Your task to perform on an android device: Go to location settings Image 0: 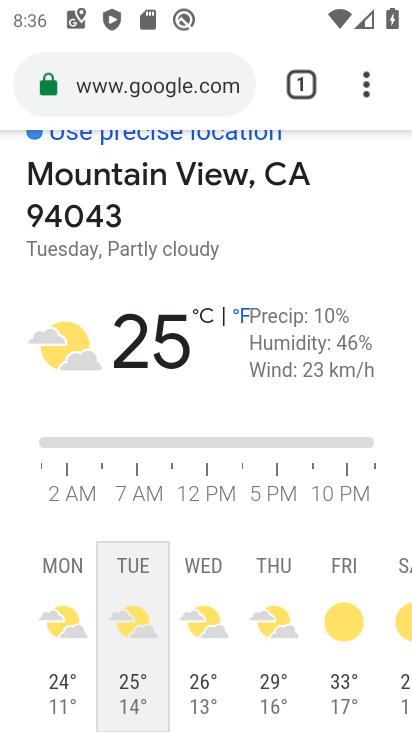
Step 0: press home button
Your task to perform on an android device: Go to location settings Image 1: 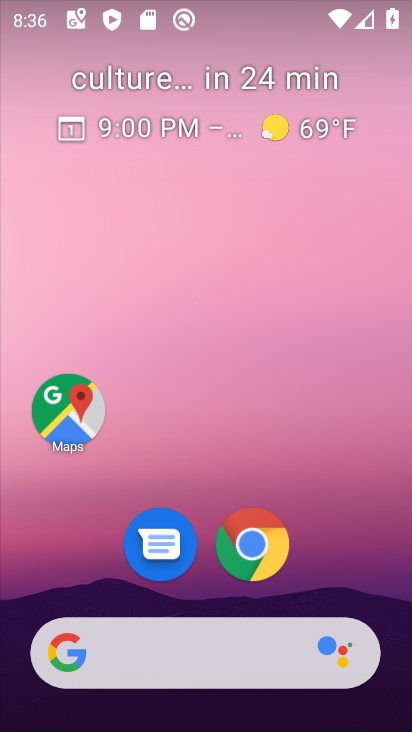
Step 1: drag from (217, 568) to (252, 226)
Your task to perform on an android device: Go to location settings Image 2: 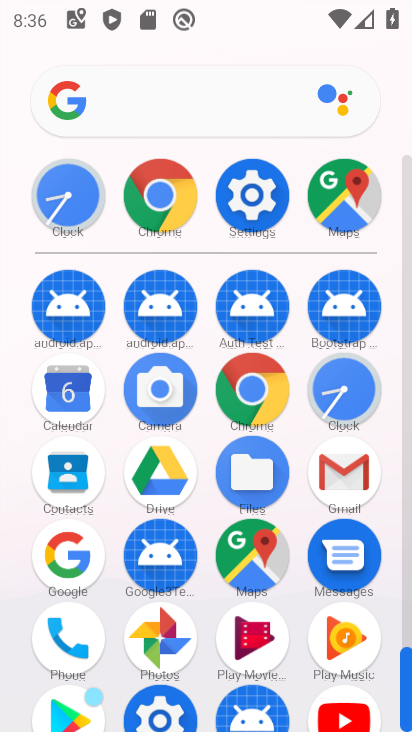
Step 2: click (244, 199)
Your task to perform on an android device: Go to location settings Image 3: 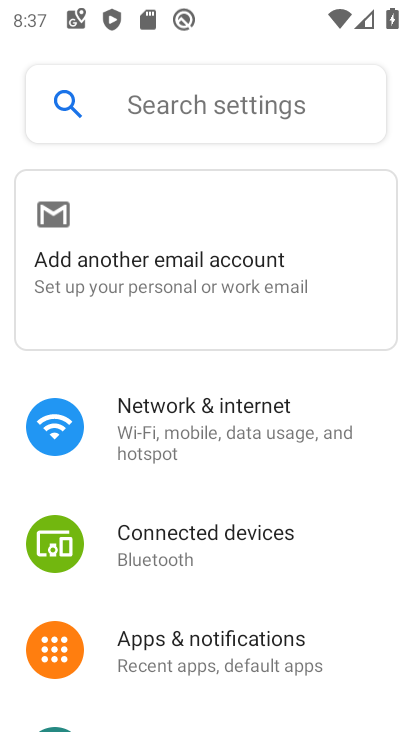
Step 3: drag from (225, 580) to (277, 171)
Your task to perform on an android device: Go to location settings Image 4: 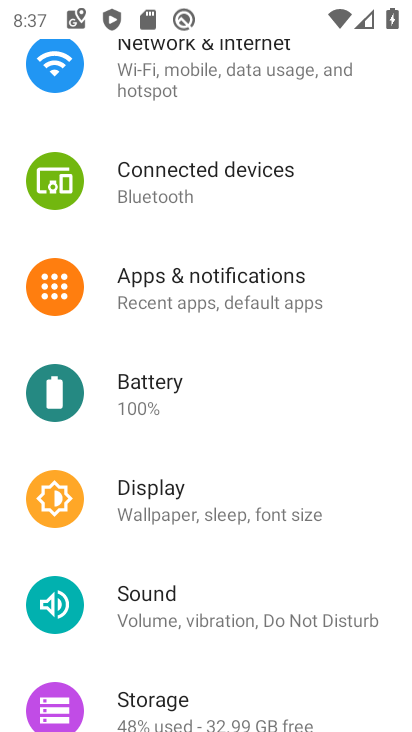
Step 4: drag from (217, 602) to (254, 229)
Your task to perform on an android device: Go to location settings Image 5: 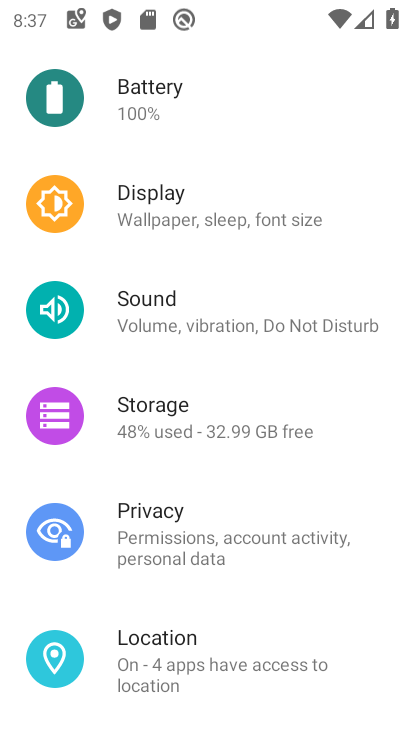
Step 5: click (222, 655)
Your task to perform on an android device: Go to location settings Image 6: 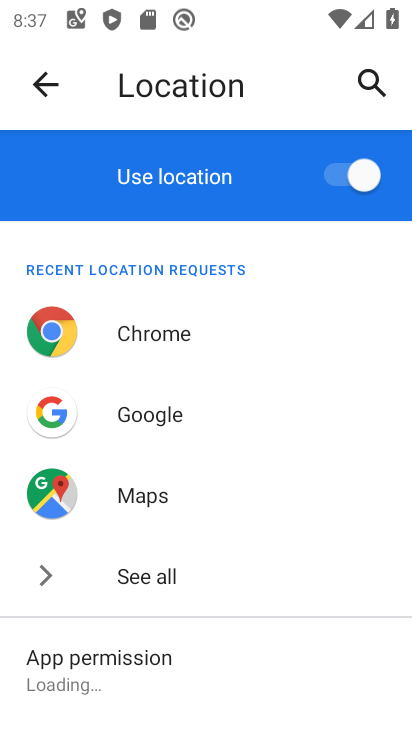
Step 6: task complete